Your task to perform on an android device: make emails show in primary in the gmail app Image 0: 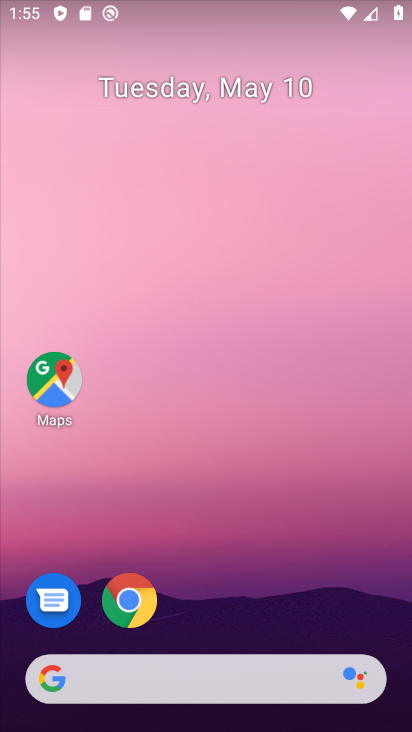
Step 0: drag from (199, 707) to (211, 268)
Your task to perform on an android device: make emails show in primary in the gmail app Image 1: 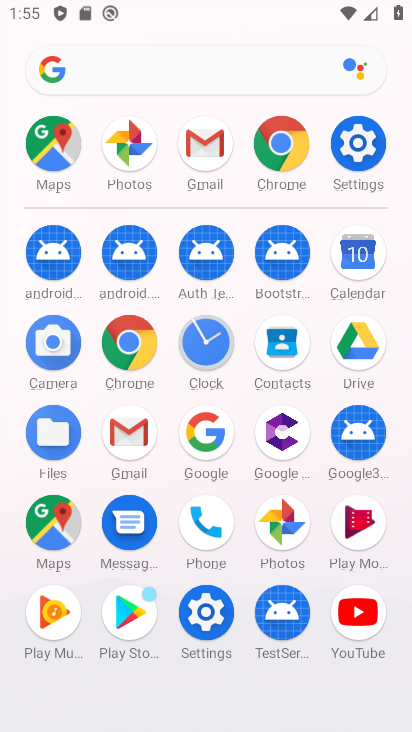
Step 1: click (130, 460)
Your task to perform on an android device: make emails show in primary in the gmail app Image 2: 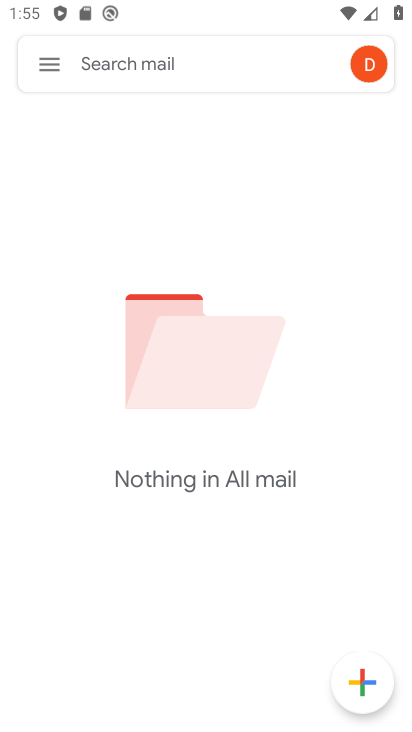
Step 2: task complete